Your task to perform on an android device: open app "Pinterest" (install if not already installed) and go to login screen Image 0: 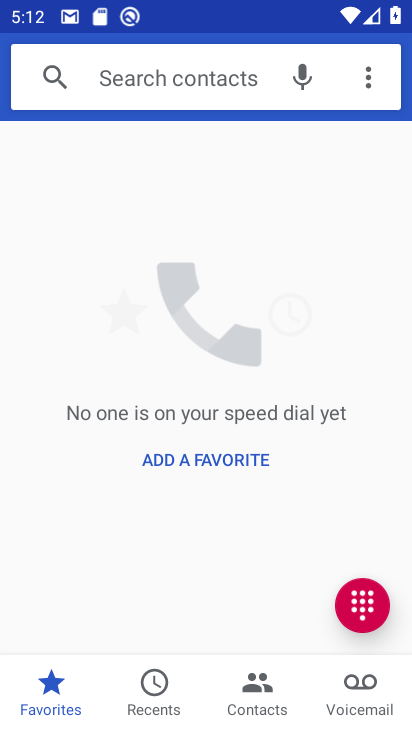
Step 0: press home button
Your task to perform on an android device: open app "Pinterest" (install if not already installed) and go to login screen Image 1: 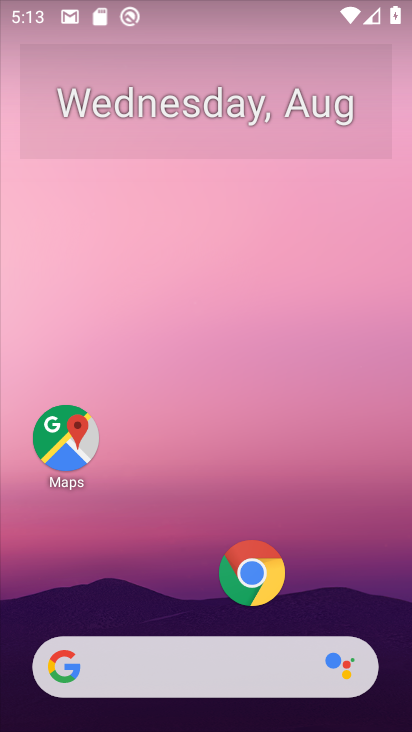
Step 1: drag from (170, 499) to (216, 7)
Your task to perform on an android device: open app "Pinterest" (install if not already installed) and go to login screen Image 2: 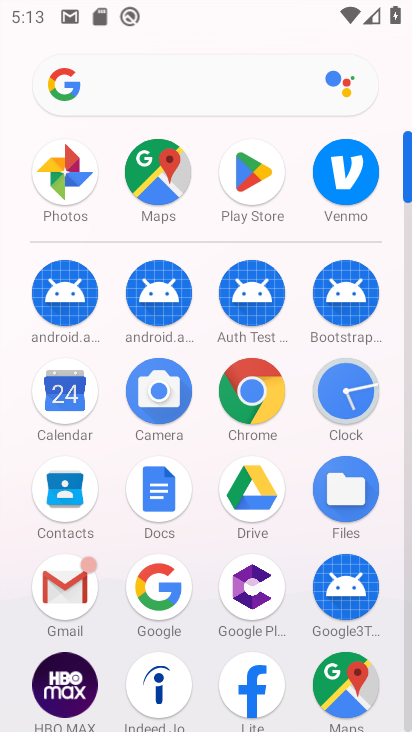
Step 2: click (248, 179)
Your task to perform on an android device: open app "Pinterest" (install if not already installed) and go to login screen Image 3: 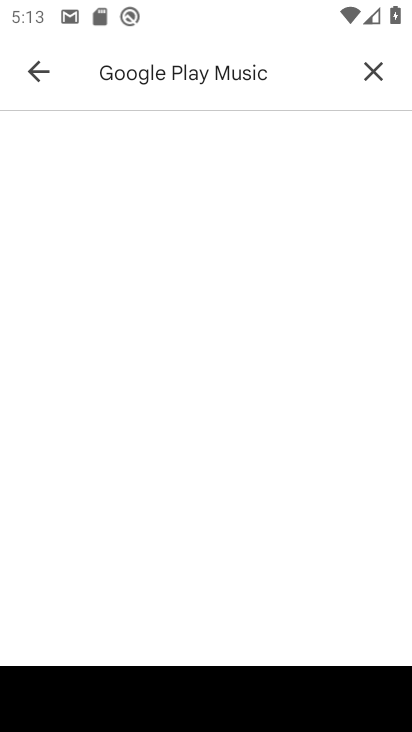
Step 3: click (27, 62)
Your task to perform on an android device: open app "Pinterest" (install if not already installed) and go to login screen Image 4: 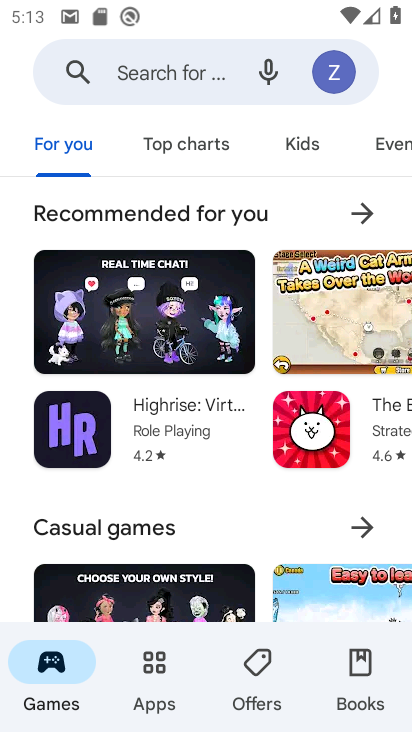
Step 4: click (173, 69)
Your task to perform on an android device: open app "Pinterest" (install if not already installed) and go to login screen Image 5: 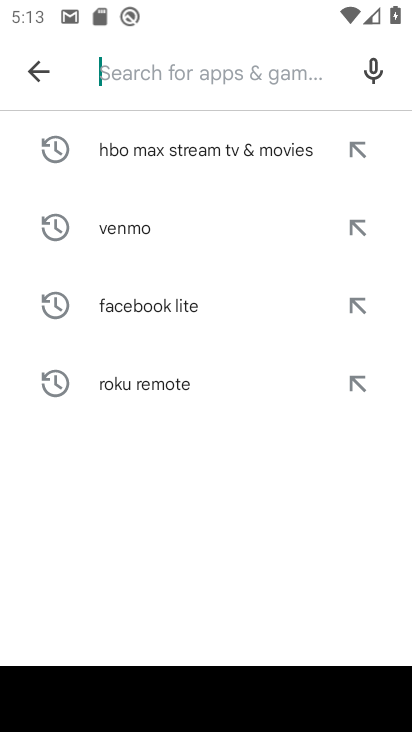
Step 5: type "Pinterest"
Your task to perform on an android device: open app "Pinterest" (install if not already installed) and go to login screen Image 6: 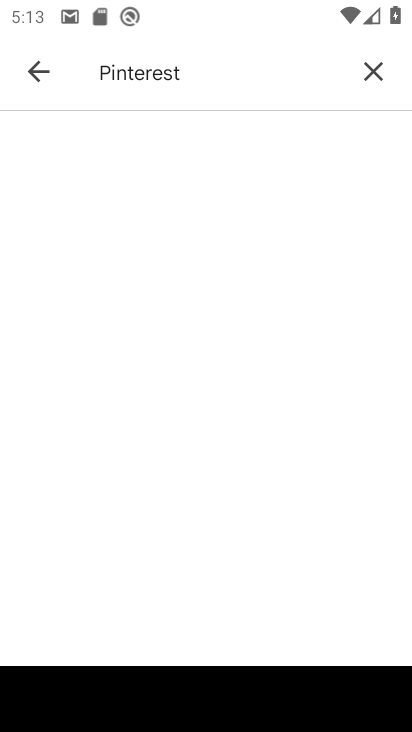
Step 6: task complete